Your task to perform on an android device: Open Google Chrome and open the bookmarks view Image 0: 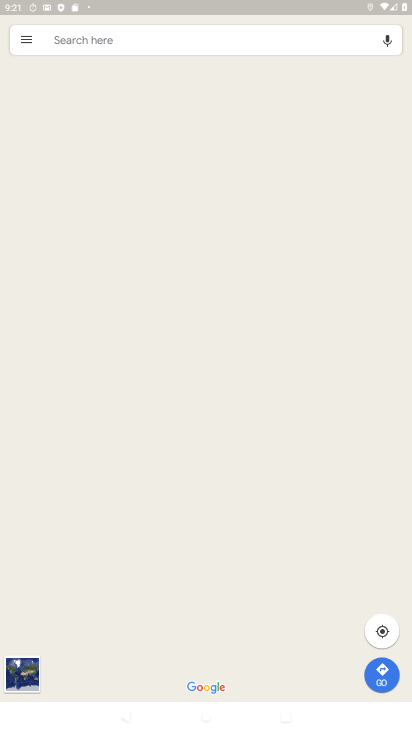
Step 0: press back button
Your task to perform on an android device: Open Google Chrome and open the bookmarks view Image 1: 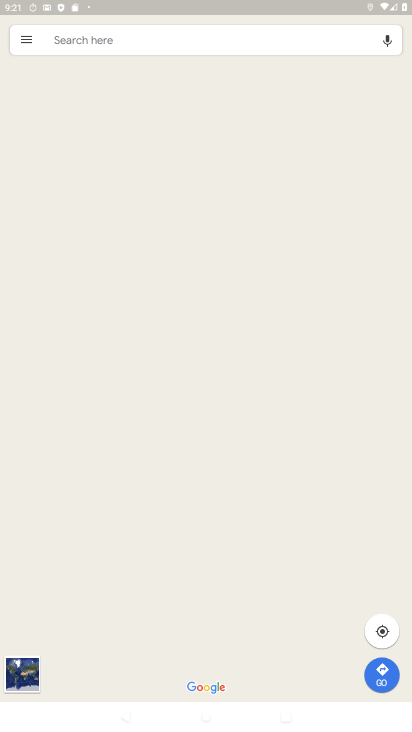
Step 1: press back button
Your task to perform on an android device: Open Google Chrome and open the bookmarks view Image 2: 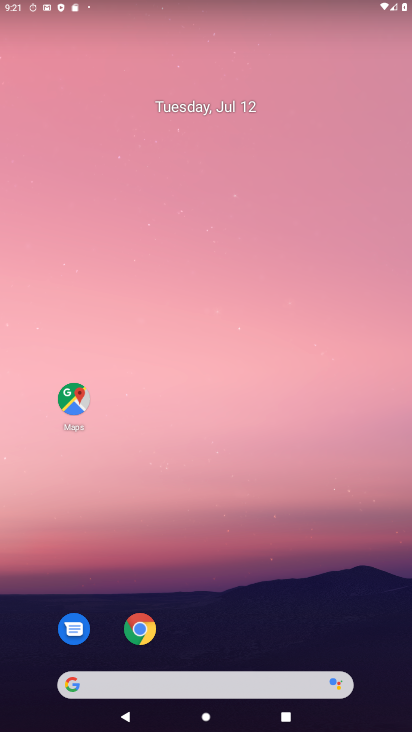
Step 2: drag from (236, 537) to (190, 41)
Your task to perform on an android device: Open Google Chrome and open the bookmarks view Image 3: 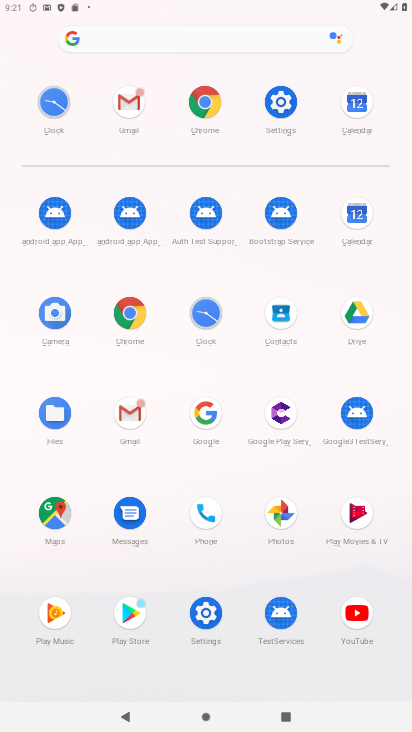
Step 3: click (210, 114)
Your task to perform on an android device: Open Google Chrome and open the bookmarks view Image 4: 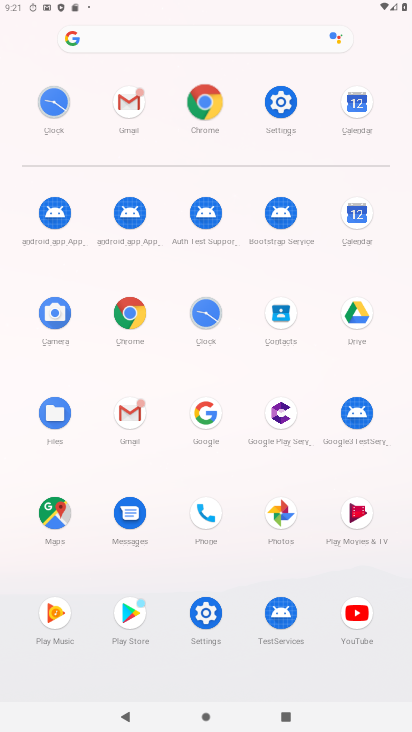
Step 4: click (210, 108)
Your task to perform on an android device: Open Google Chrome and open the bookmarks view Image 5: 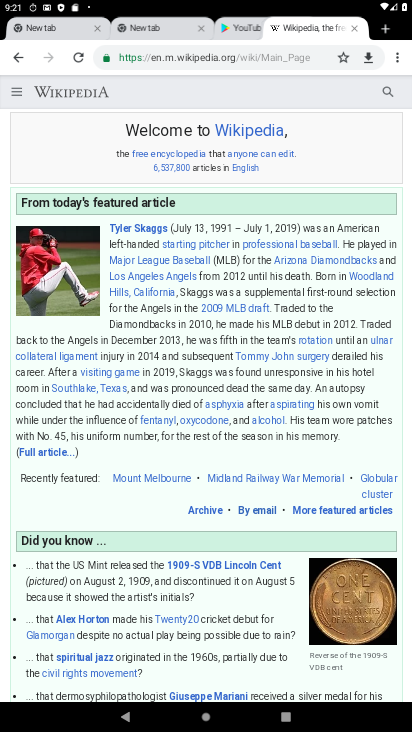
Step 5: drag from (396, 56) to (278, 114)
Your task to perform on an android device: Open Google Chrome and open the bookmarks view Image 6: 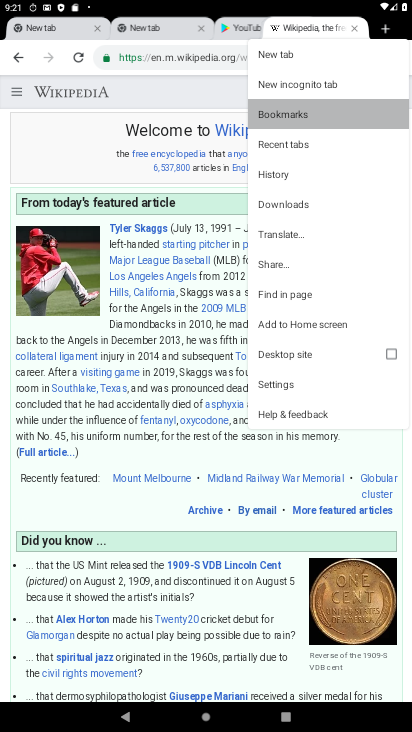
Step 6: click (285, 106)
Your task to perform on an android device: Open Google Chrome and open the bookmarks view Image 7: 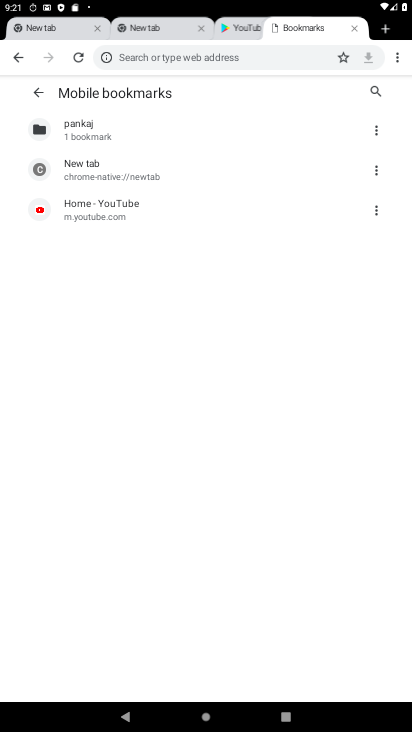
Step 7: task complete